Your task to perform on an android device: Go to ESPN.com Image 0: 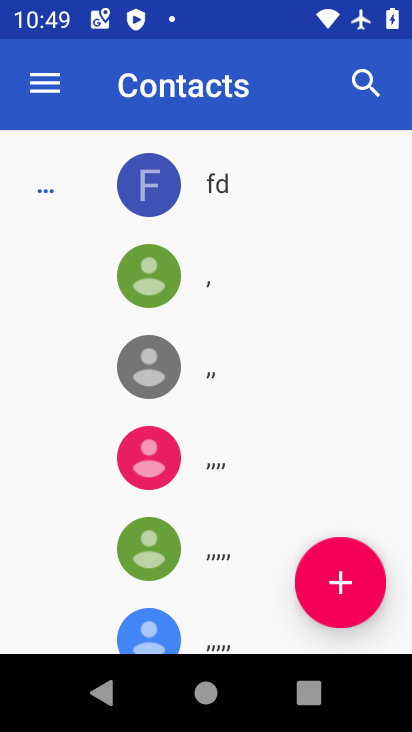
Step 0: press home button
Your task to perform on an android device: Go to ESPN.com Image 1: 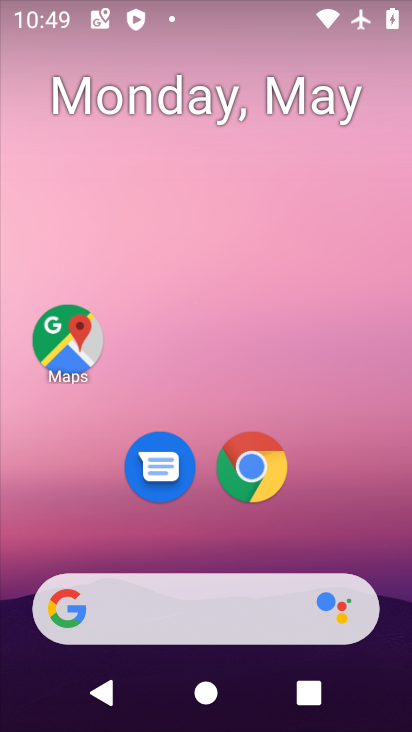
Step 1: click (245, 464)
Your task to perform on an android device: Go to ESPN.com Image 2: 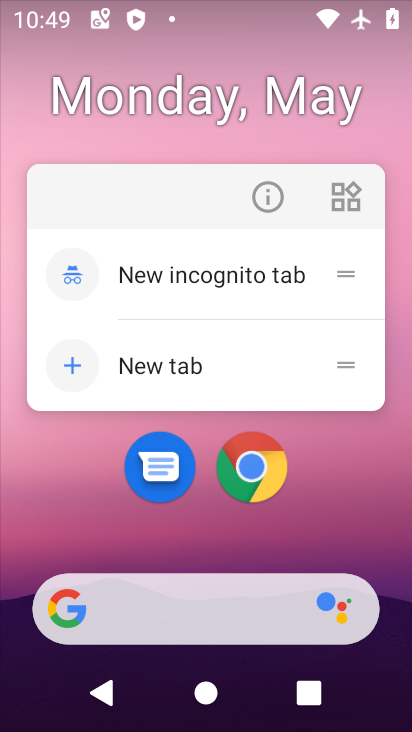
Step 2: click (249, 480)
Your task to perform on an android device: Go to ESPN.com Image 3: 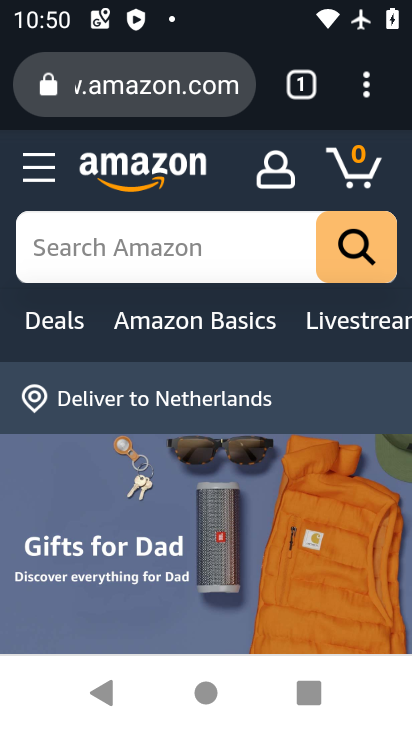
Step 3: click (162, 98)
Your task to perform on an android device: Go to ESPN.com Image 4: 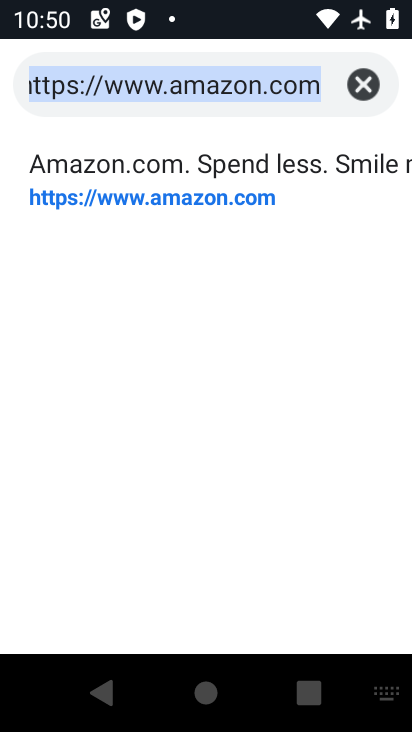
Step 4: type "ESPN.com"
Your task to perform on an android device: Go to ESPN.com Image 5: 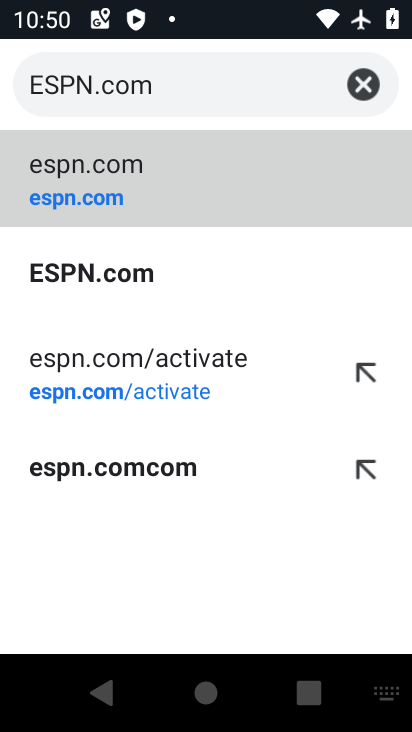
Step 5: click (48, 189)
Your task to perform on an android device: Go to ESPN.com Image 6: 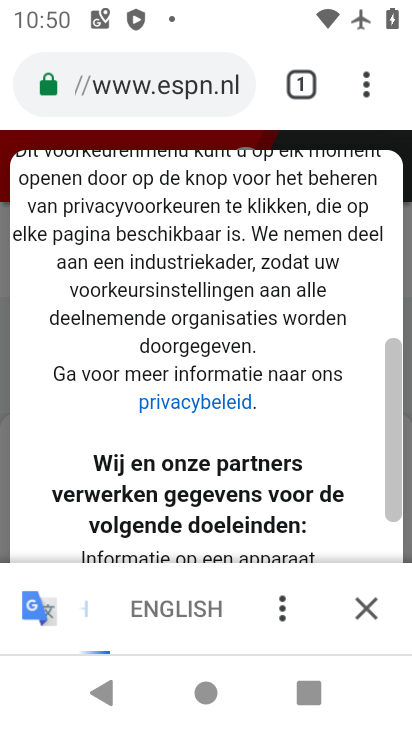
Step 6: task complete